Your task to perform on an android device: When is my next meeting? Image 0: 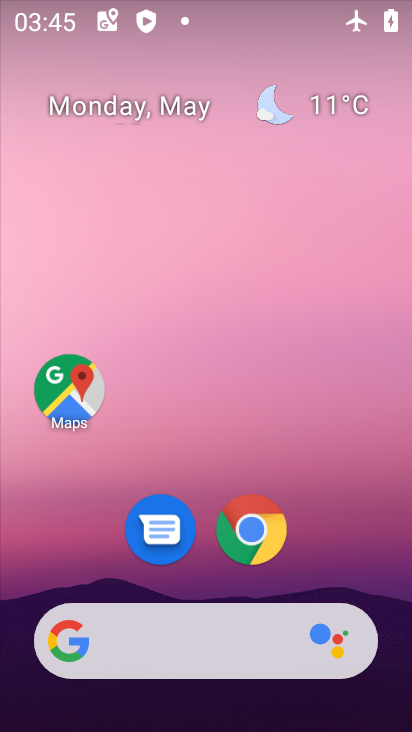
Step 0: drag from (347, 515) to (273, 42)
Your task to perform on an android device: When is my next meeting? Image 1: 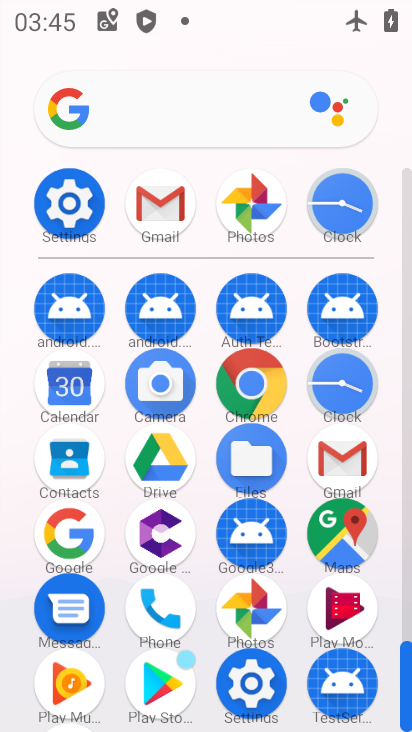
Step 1: click (65, 397)
Your task to perform on an android device: When is my next meeting? Image 2: 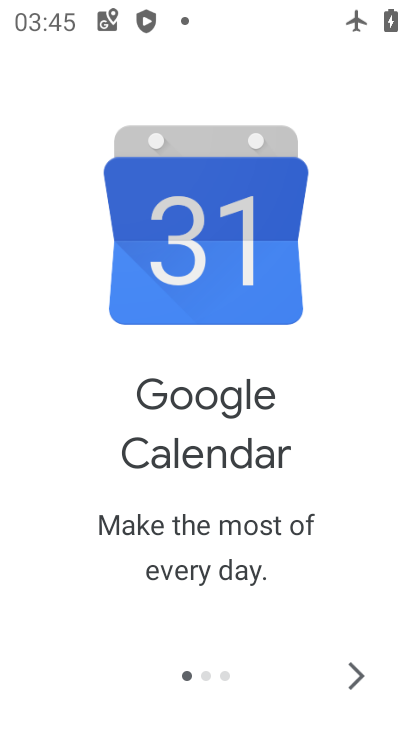
Step 2: click (358, 674)
Your task to perform on an android device: When is my next meeting? Image 3: 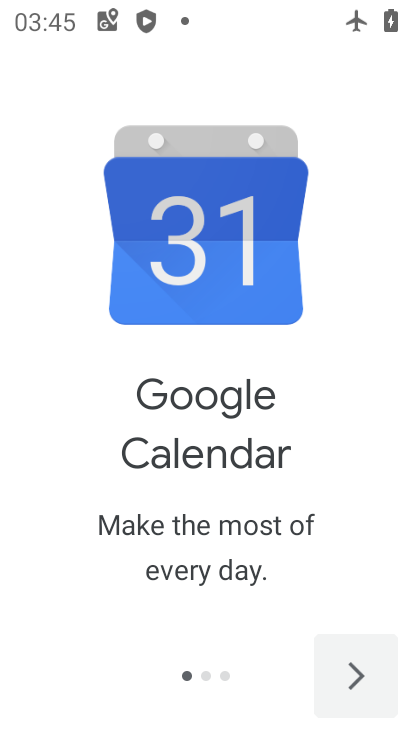
Step 3: click (355, 671)
Your task to perform on an android device: When is my next meeting? Image 4: 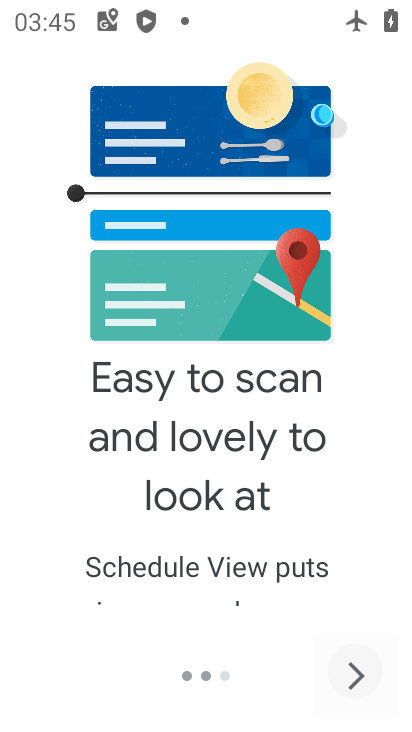
Step 4: click (354, 670)
Your task to perform on an android device: When is my next meeting? Image 5: 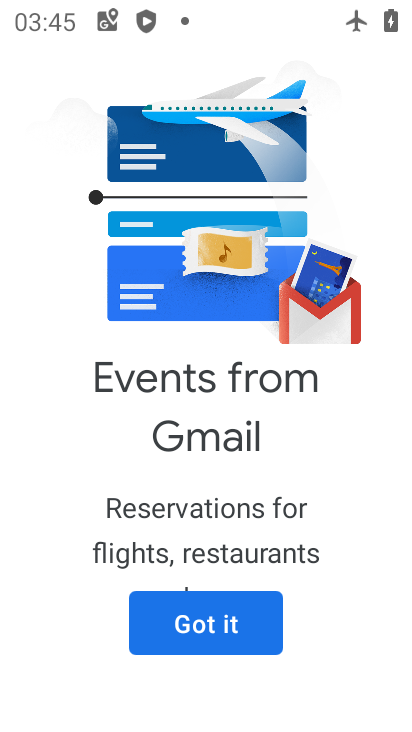
Step 5: click (228, 616)
Your task to perform on an android device: When is my next meeting? Image 6: 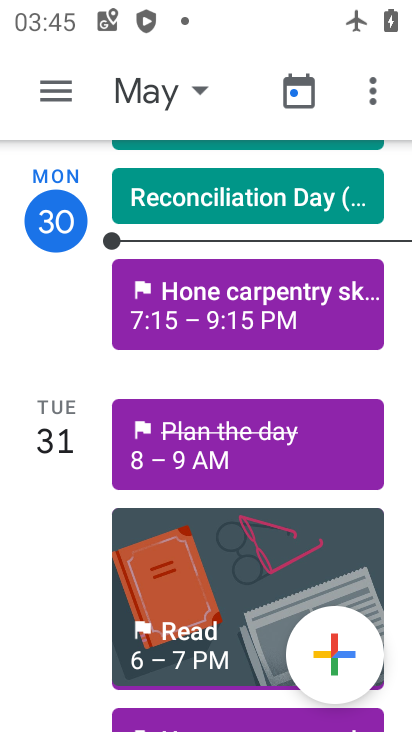
Step 6: task complete